Your task to perform on an android device: see sites visited before in the chrome app Image 0: 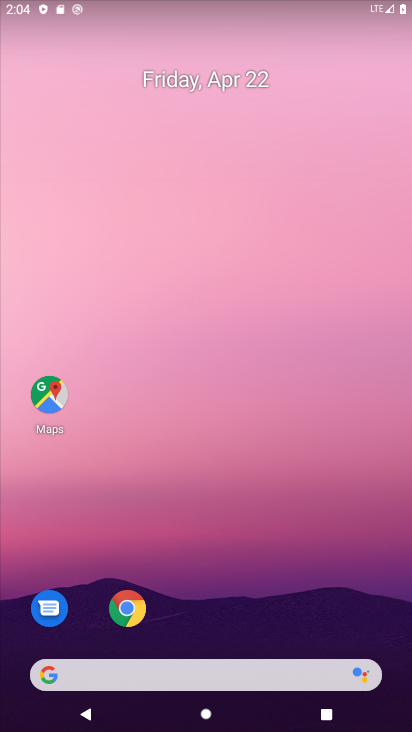
Step 0: drag from (232, 701) to (322, 213)
Your task to perform on an android device: see sites visited before in the chrome app Image 1: 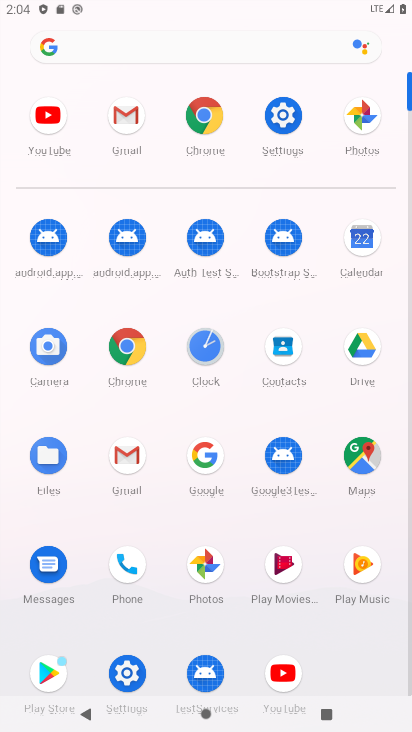
Step 1: click (217, 117)
Your task to perform on an android device: see sites visited before in the chrome app Image 2: 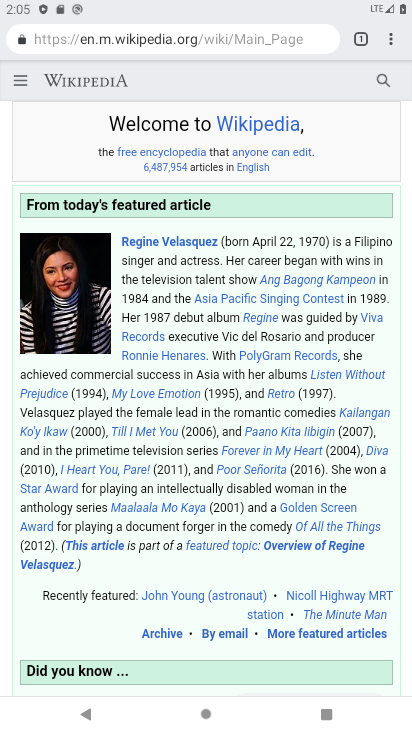
Step 2: click (386, 44)
Your task to perform on an android device: see sites visited before in the chrome app Image 3: 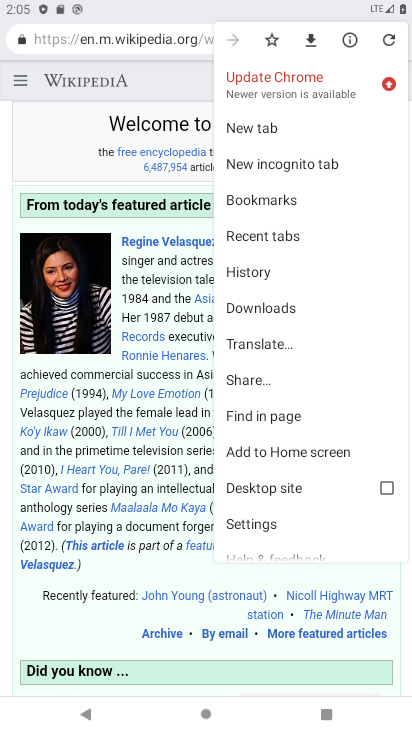
Step 3: click (248, 520)
Your task to perform on an android device: see sites visited before in the chrome app Image 4: 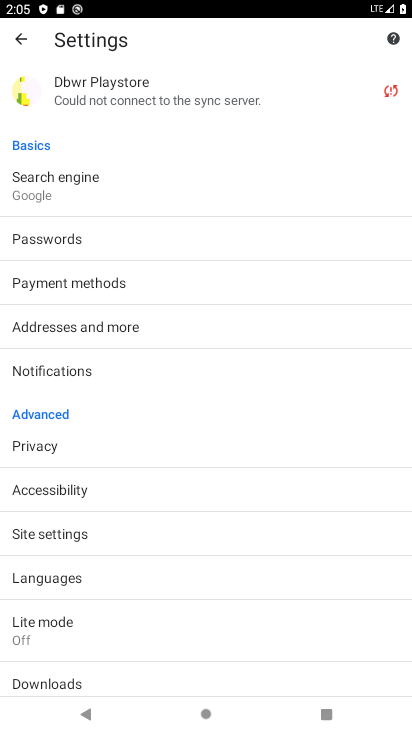
Step 4: click (42, 534)
Your task to perform on an android device: see sites visited before in the chrome app Image 5: 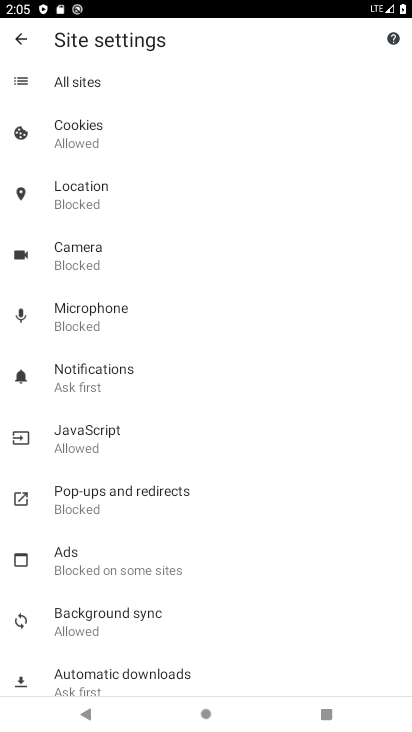
Step 5: task complete